Your task to perform on an android device: What is the news today? Image 0: 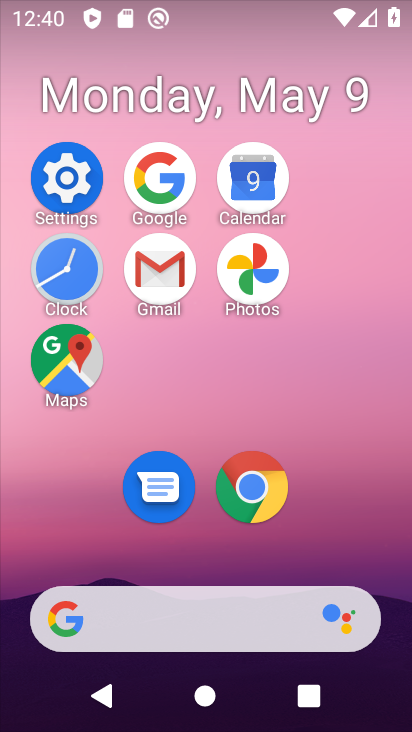
Step 0: click (176, 163)
Your task to perform on an android device: What is the news today? Image 1: 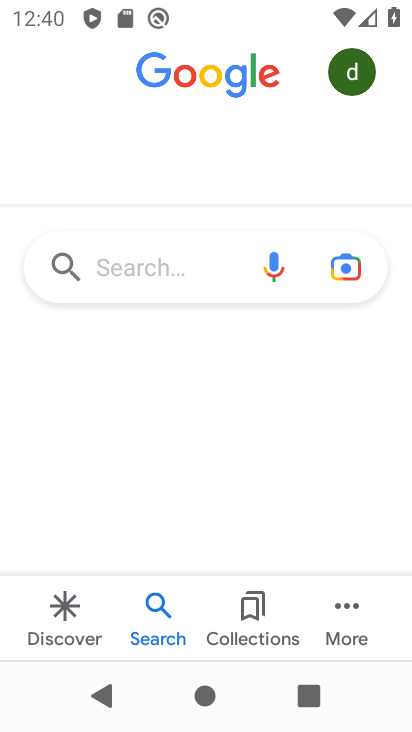
Step 1: click (148, 257)
Your task to perform on an android device: What is the news today? Image 2: 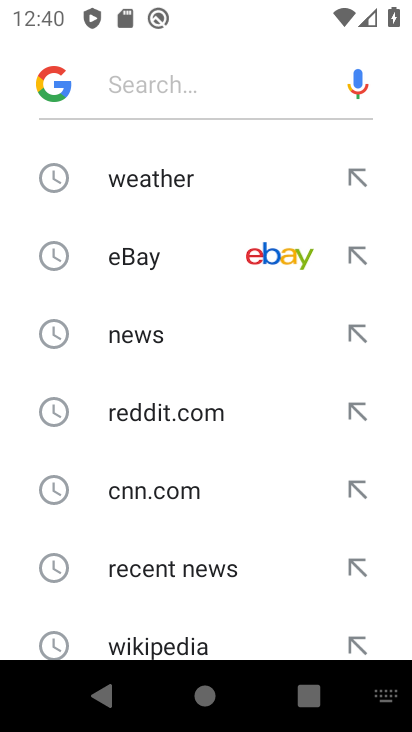
Step 2: click (157, 332)
Your task to perform on an android device: What is the news today? Image 3: 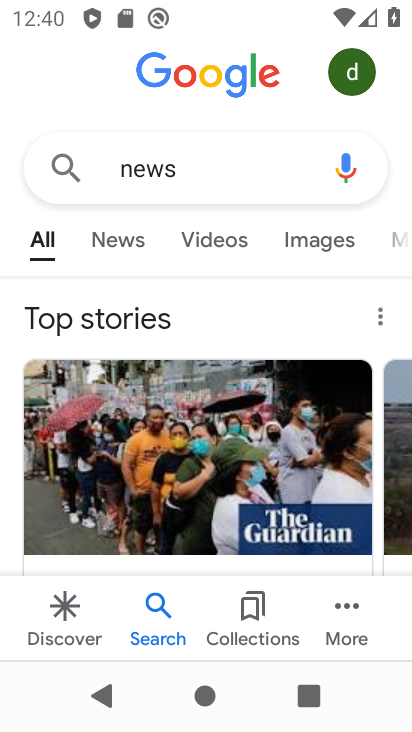
Step 3: task complete